Your task to perform on an android device: choose inbox layout in the gmail app Image 0: 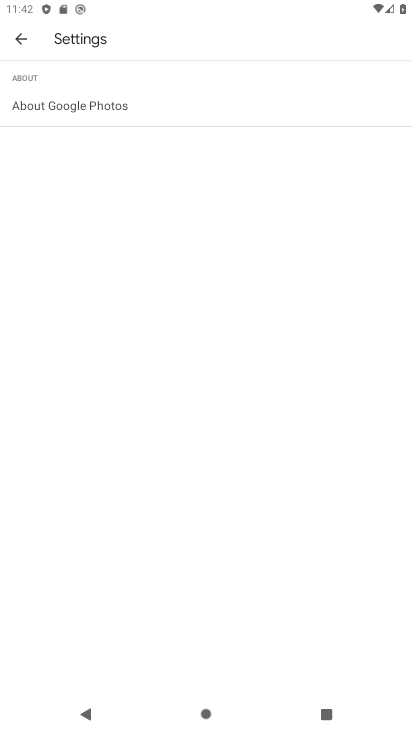
Step 0: press home button
Your task to perform on an android device: choose inbox layout in the gmail app Image 1: 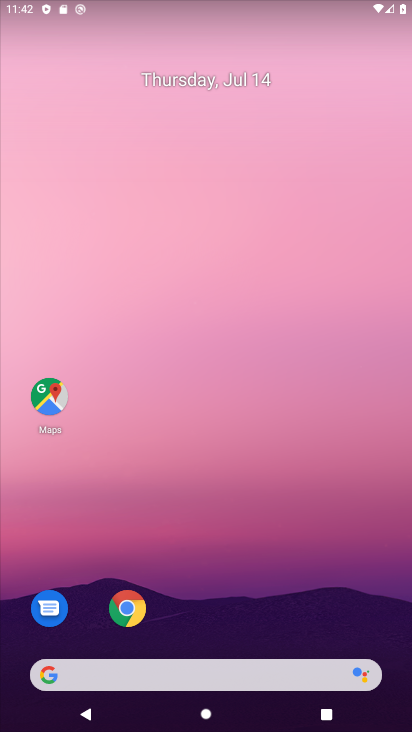
Step 1: drag from (230, 619) to (233, 127)
Your task to perform on an android device: choose inbox layout in the gmail app Image 2: 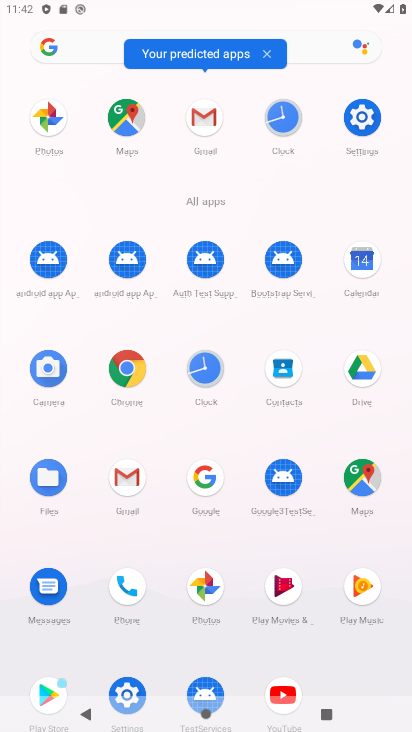
Step 2: click (126, 480)
Your task to perform on an android device: choose inbox layout in the gmail app Image 3: 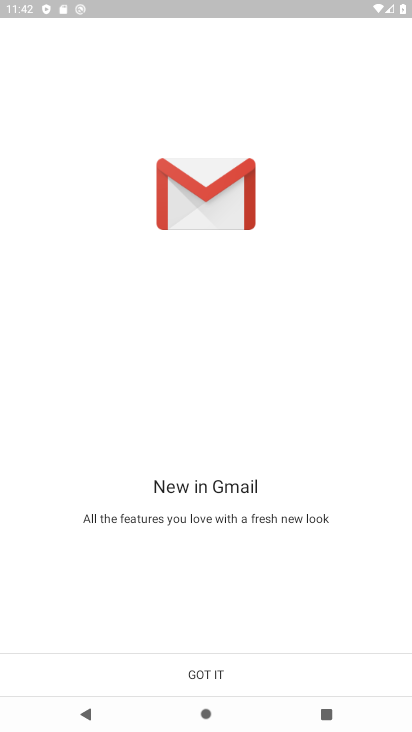
Step 3: click (206, 672)
Your task to perform on an android device: choose inbox layout in the gmail app Image 4: 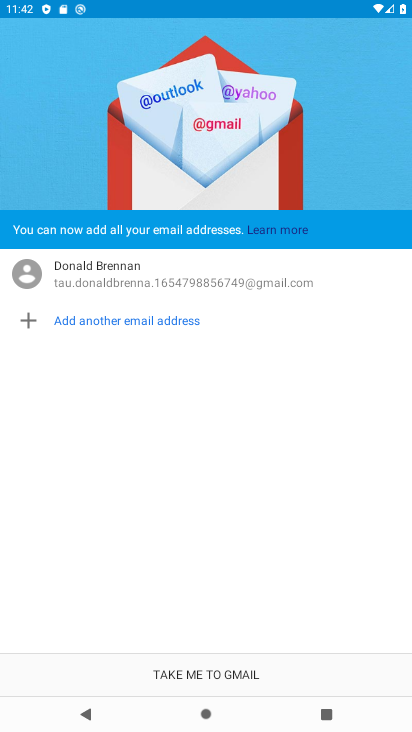
Step 4: click (205, 670)
Your task to perform on an android device: choose inbox layout in the gmail app Image 5: 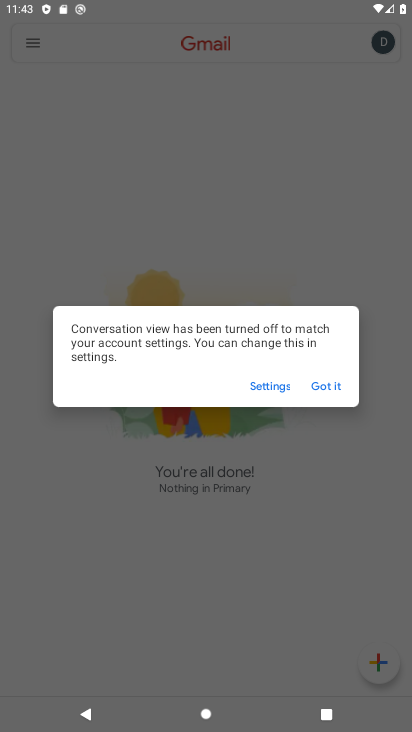
Step 5: click (273, 389)
Your task to perform on an android device: choose inbox layout in the gmail app Image 6: 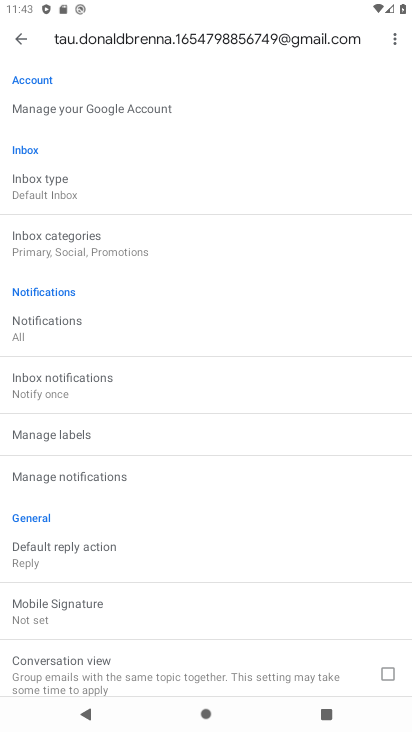
Step 6: click (56, 182)
Your task to perform on an android device: choose inbox layout in the gmail app Image 7: 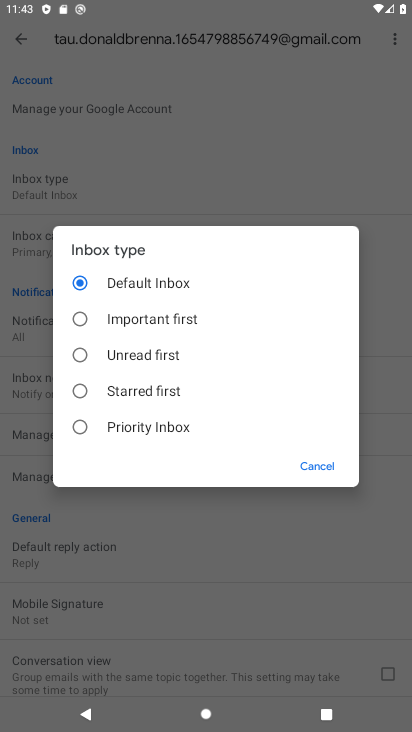
Step 7: click (80, 325)
Your task to perform on an android device: choose inbox layout in the gmail app Image 8: 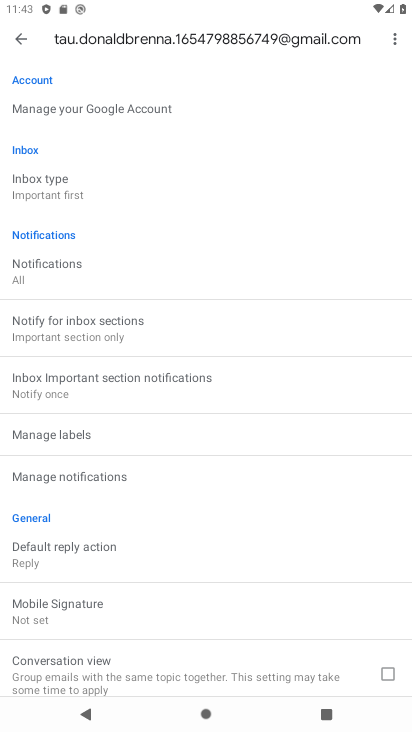
Step 8: task complete